Your task to perform on an android device: empty trash in google photos Image 0: 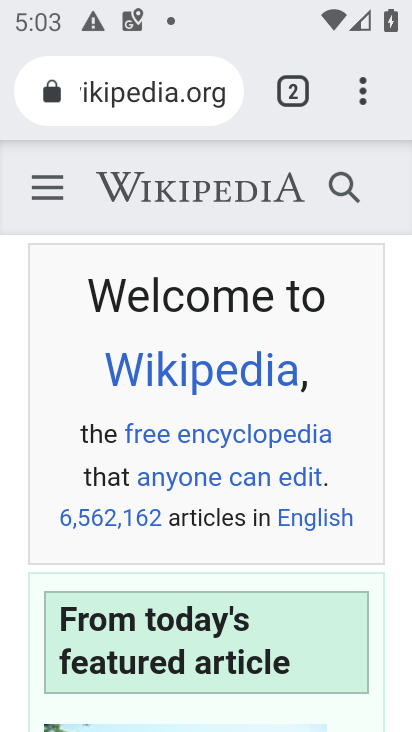
Step 0: press home button
Your task to perform on an android device: empty trash in google photos Image 1: 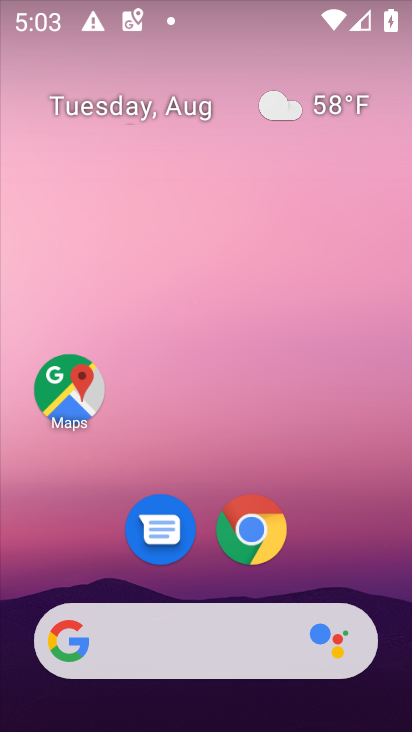
Step 1: drag from (189, 473) to (195, 163)
Your task to perform on an android device: empty trash in google photos Image 2: 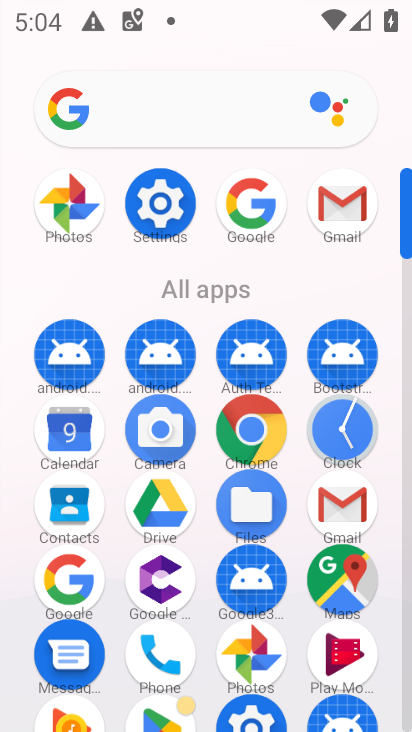
Step 2: click (85, 234)
Your task to perform on an android device: empty trash in google photos Image 3: 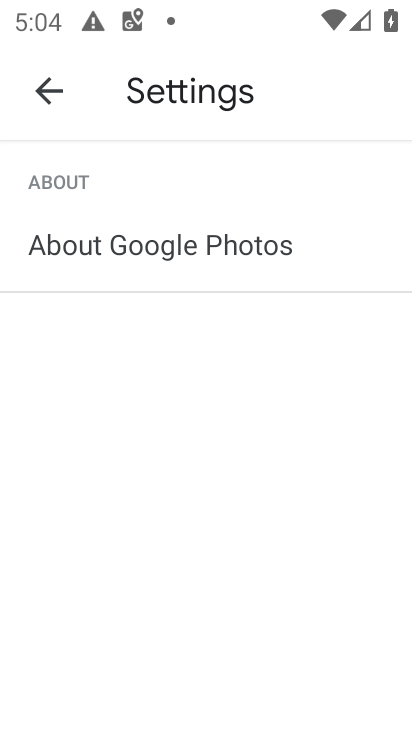
Step 3: click (59, 86)
Your task to perform on an android device: empty trash in google photos Image 4: 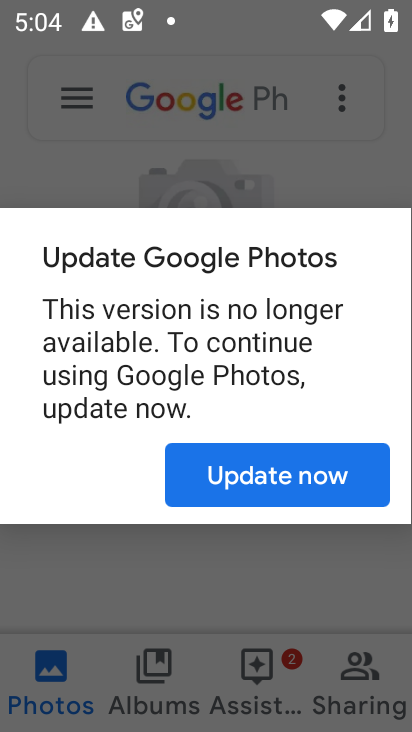
Step 4: click (262, 458)
Your task to perform on an android device: empty trash in google photos Image 5: 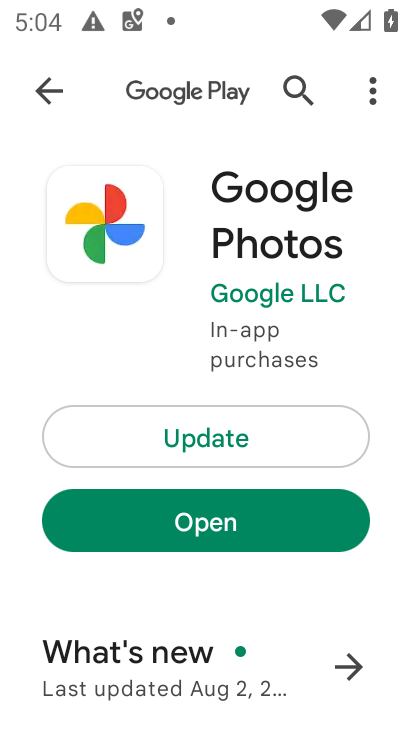
Step 5: click (194, 518)
Your task to perform on an android device: empty trash in google photos Image 6: 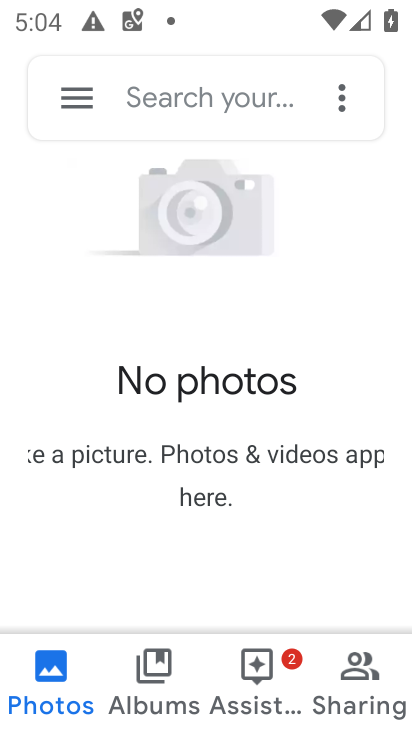
Step 6: click (71, 104)
Your task to perform on an android device: empty trash in google photos Image 7: 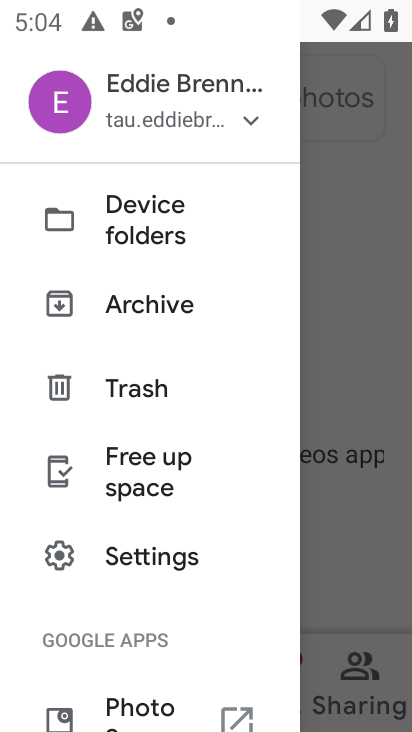
Step 7: click (152, 379)
Your task to perform on an android device: empty trash in google photos Image 8: 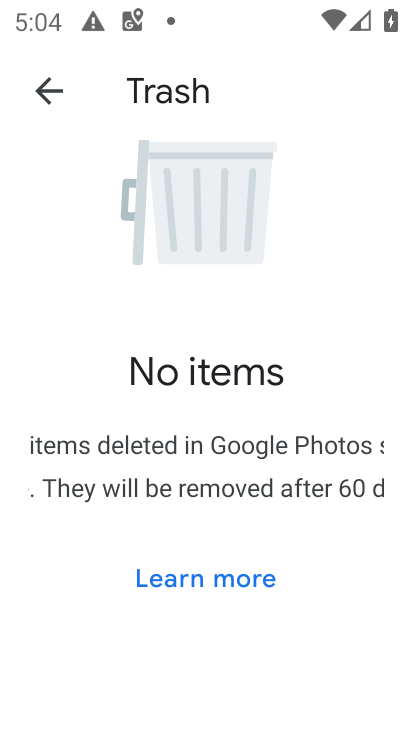
Step 8: task complete